Your task to perform on an android device: Search for sushi restaurants on Maps Image 0: 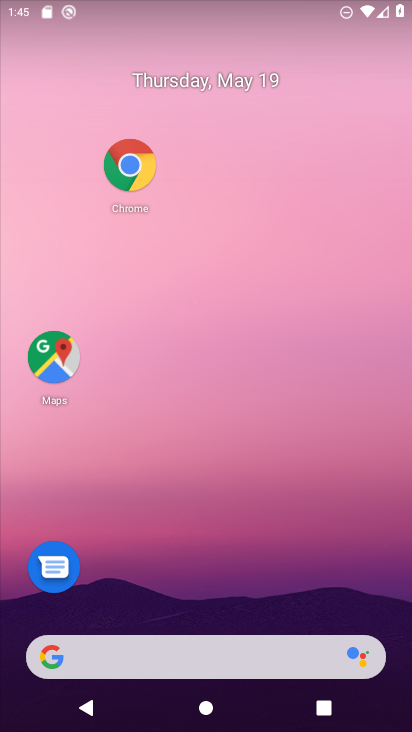
Step 0: click (75, 355)
Your task to perform on an android device: Search for sushi restaurants on Maps Image 1: 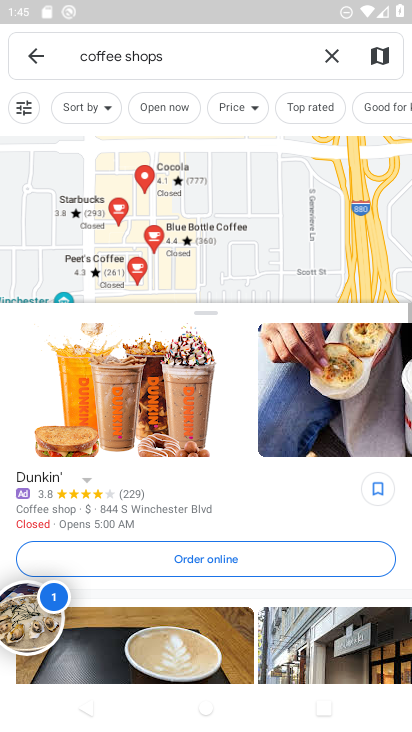
Step 1: task complete